Your task to perform on an android device: snooze an email in the gmail app Image 0: 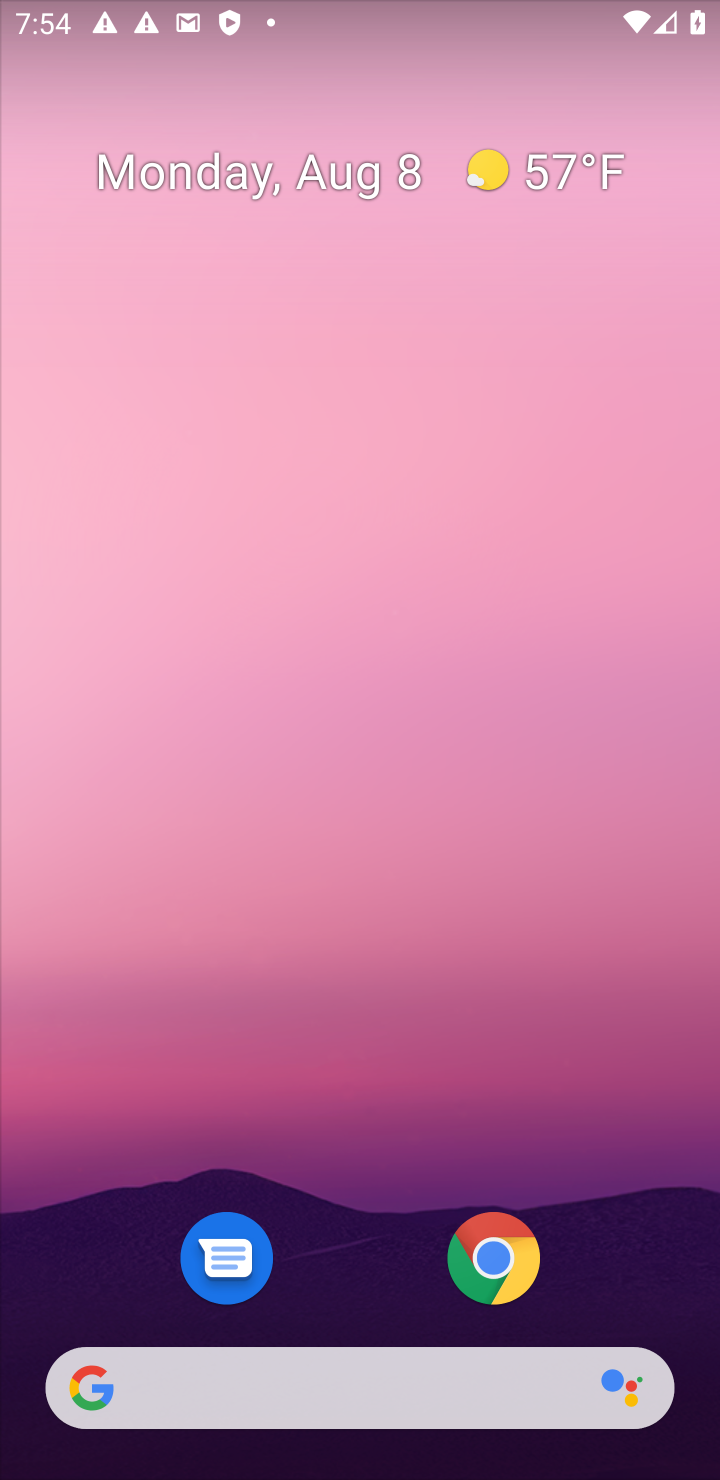
Step 0: click (513, 1281)
Your task to perform on an android device: snooze an email in the gmail app Image 1: 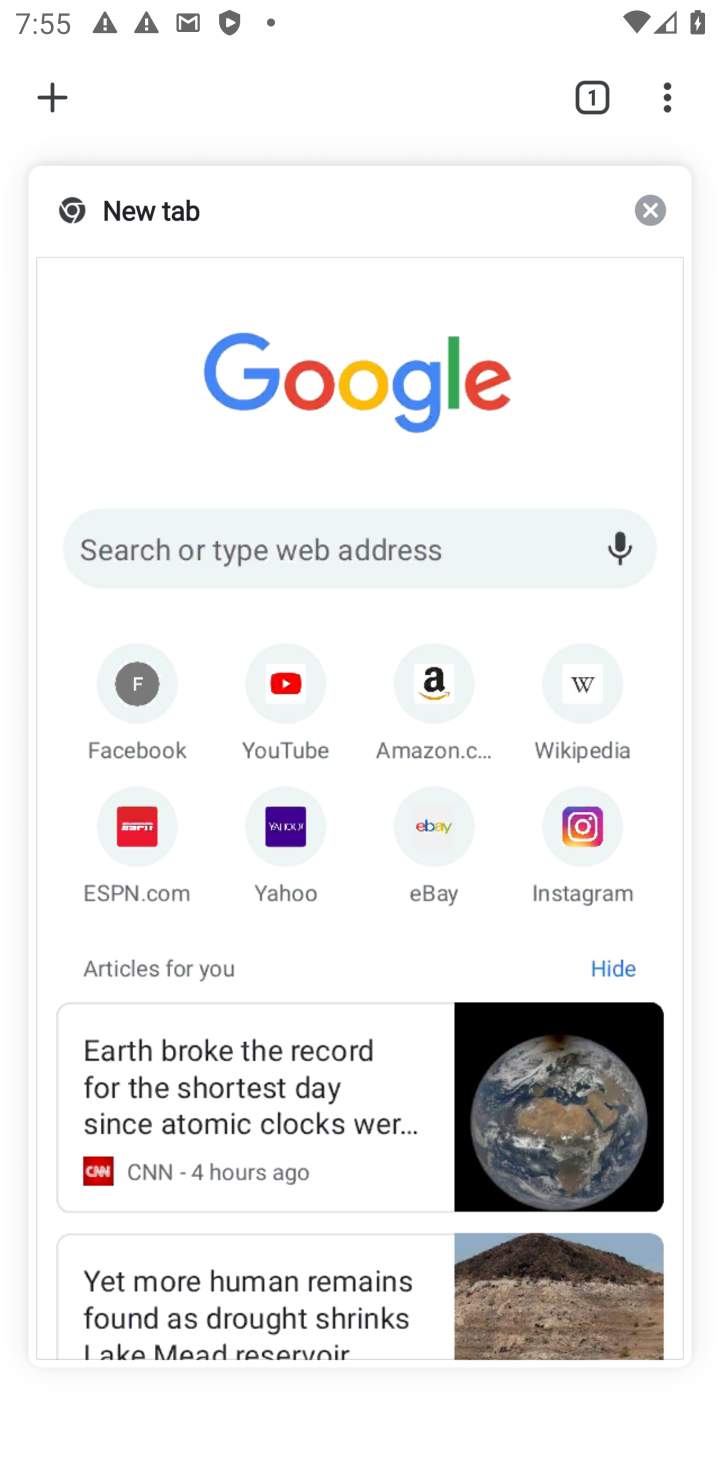
Step 1: task complete